Your task to perform on an android device: What is the speed of a rocket? Image 0: 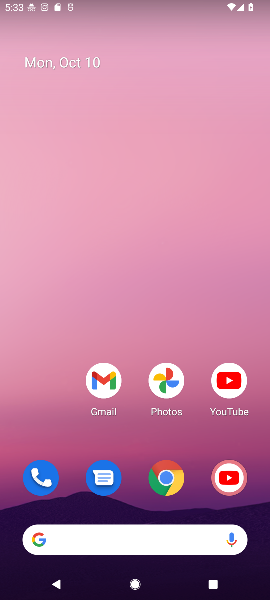
Step 0: click (79, 550)
Your task to perform on an android device: What is the speed of a rocket? Image 1: 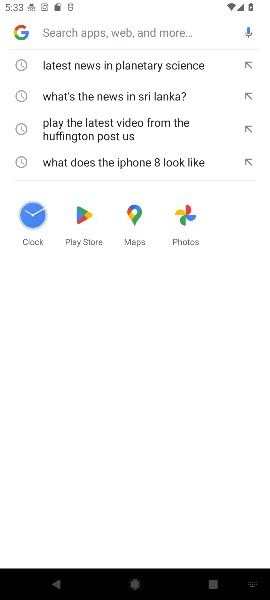
Step 1: type "What is the speed of a rocket?"
Your task to perform on an android device: What is the speed of a rocket? Image 2: 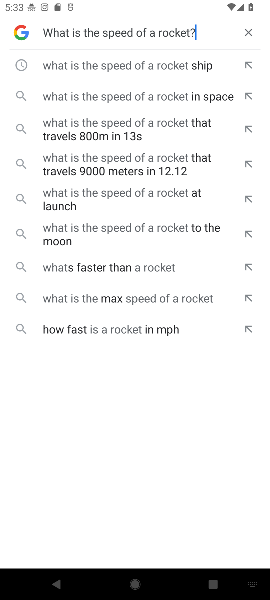
Step 2: click (137, 64)
Your task to perform on an android device: What is the speed of a rocket? Image 3: 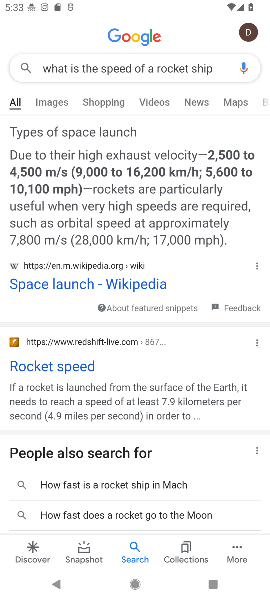
Step 3: task complete